Your task to perform on an android device: Open accessibility settings Image 0: 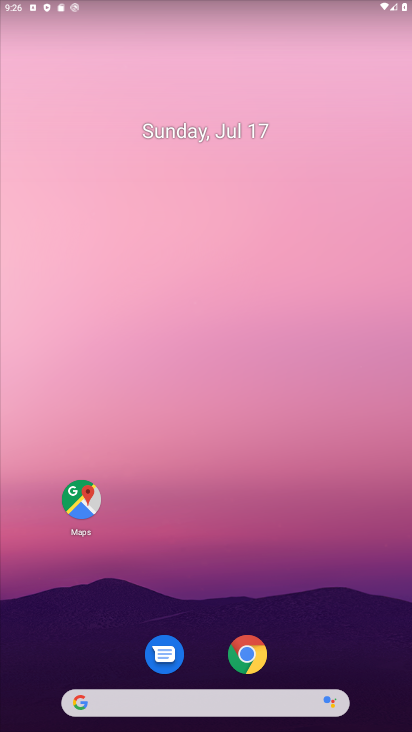
Step 0: drag from (191, 659) to (191, 49)
Your task to perform on an android device: Open accessibility settings Image 1: 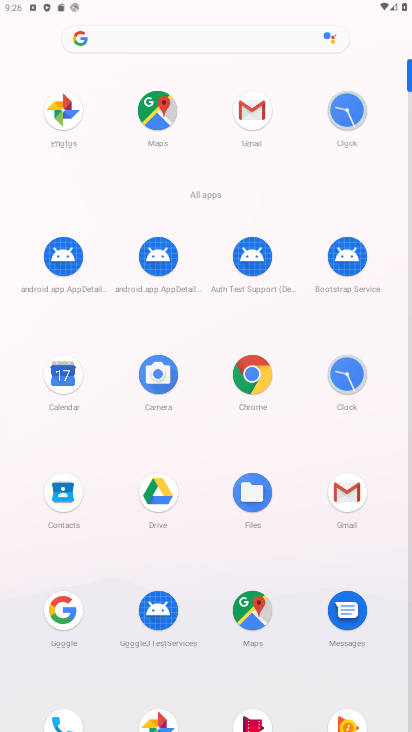
Step 1: drag from (196, 536) to (247, 102)
Your task to perform on an android device: Open accessibility settings Image 2: 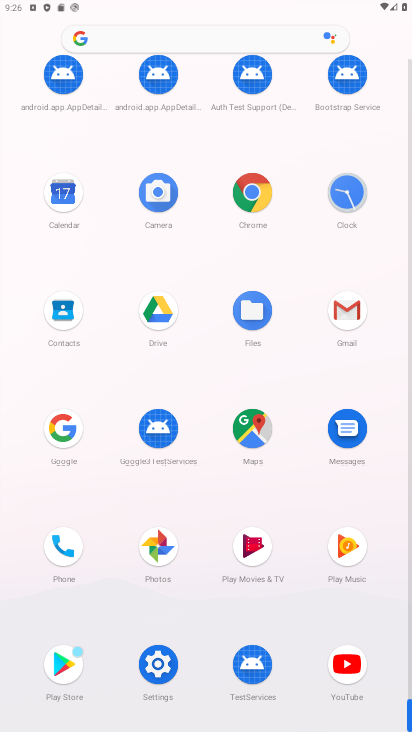
Step 2: click (152, 644)
Your task to perform on an android device: Open accessibility settings Image 3: 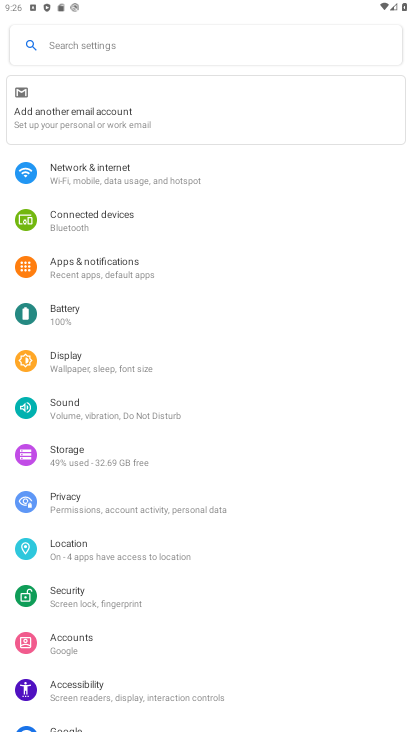
Step 3: click (107, 684)
Your task to perform on an android device: Open accessibility settings Image 4: 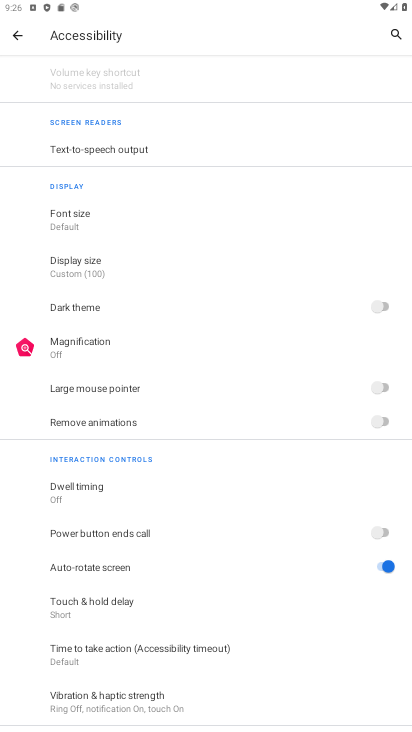
Step 4: task complete